Your task to perform on an android device: open app "Paramount+ | Peak Streaming" (install if not already installed) and enter user name: "fostered@yahoo.com" and password: "strong" Image 0: 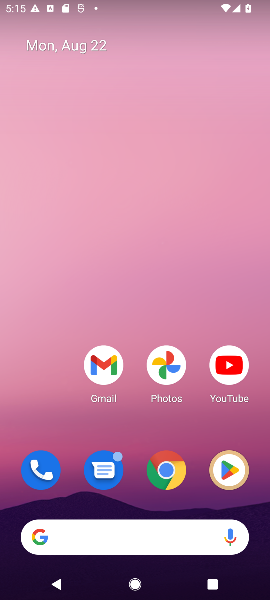
Step 0: click (230, 463)
Your task to perform on an android device: open app "Paramount+ | Peak Streaming" (install if not already installed) and enter user name: "fostered@yahoo.com" and password: "strong" Image 1: 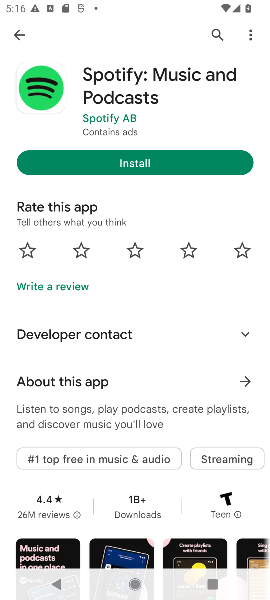
Step 1: click (11, 37)
Your task to perform on an android device: open app "Paramount+ | Peak Streaming" (install if not already installed) and enter user name: "fostered@yahoo.com" and password: "strong" Image 2: 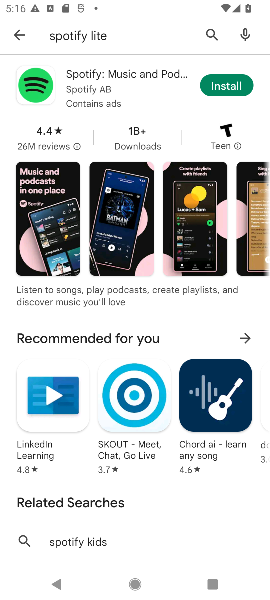
Step 2: click (27, 31)
Your task to perform on an android device: open app "Paramount+ | Peak Streaming" (install if not already installed) and enter user name: "fostered@yahoo.com" and password: "strong" Image 3: 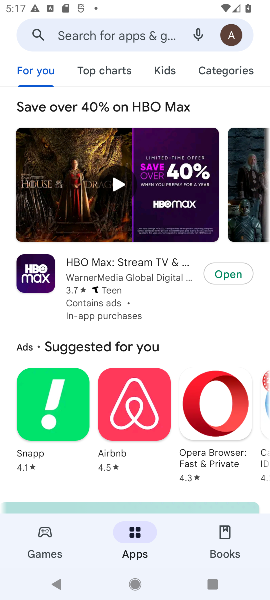
Step 3: click (100, 31)
Your task to perform on an android device: open app "Paramount+ | Peak Streaming" (install if not already installed) and enter user name: "fostered@yahoo.com" and password: "strong" Image 4: 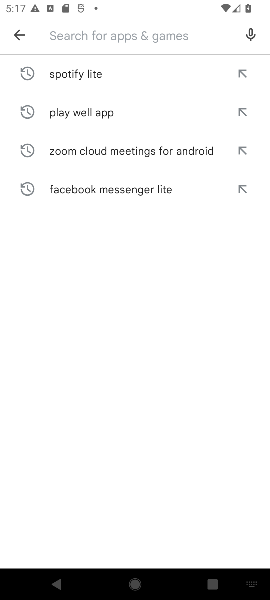
Step 4: type "Paramount "
Your task to perform on an android device: open app "Paramount+ | Peak Streaming" (install if not already installed) and enter user name: "fostered@yahoo.com" and password: "strong" Image 5: 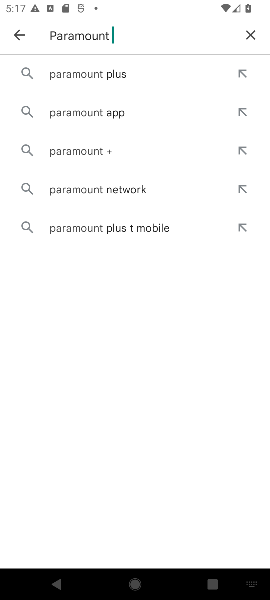
Step 5: click (110, 63)
Your task to perform on an android device: open app "Paramount+ | Peak Streaming" (install if not already installed) and enter user name: "fostered@yahoo.com" and password: "strong" Image 6: 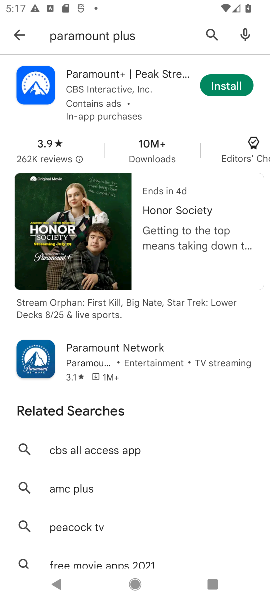
Step 6: click (215, 85)
Your task to perform on an android device: open app "Paramount+ | Peak Streaming" (install if not already installed) and enter user name: "fostered@yahoo.com" and password: "strong" Image 7: 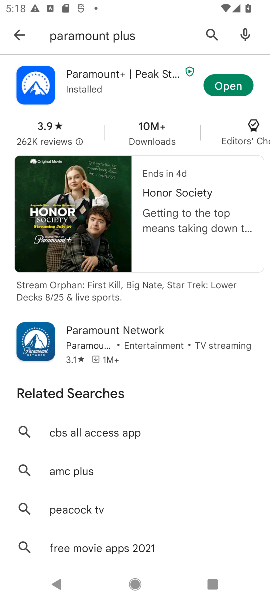
Step 7: click (241, 86)
Your task to perform on an android device: open app "Paramount+ | Peak Streaming" (install if not already installed) and enter user name: "fostered@yahoo.com" and password: "strong" Image 8: 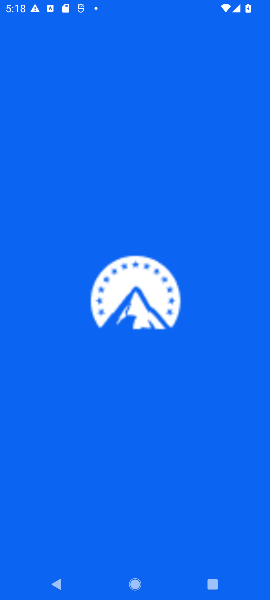
Step 8: task complete